Your task to perform on an android device: allow cookies in the chrome app Image 0: 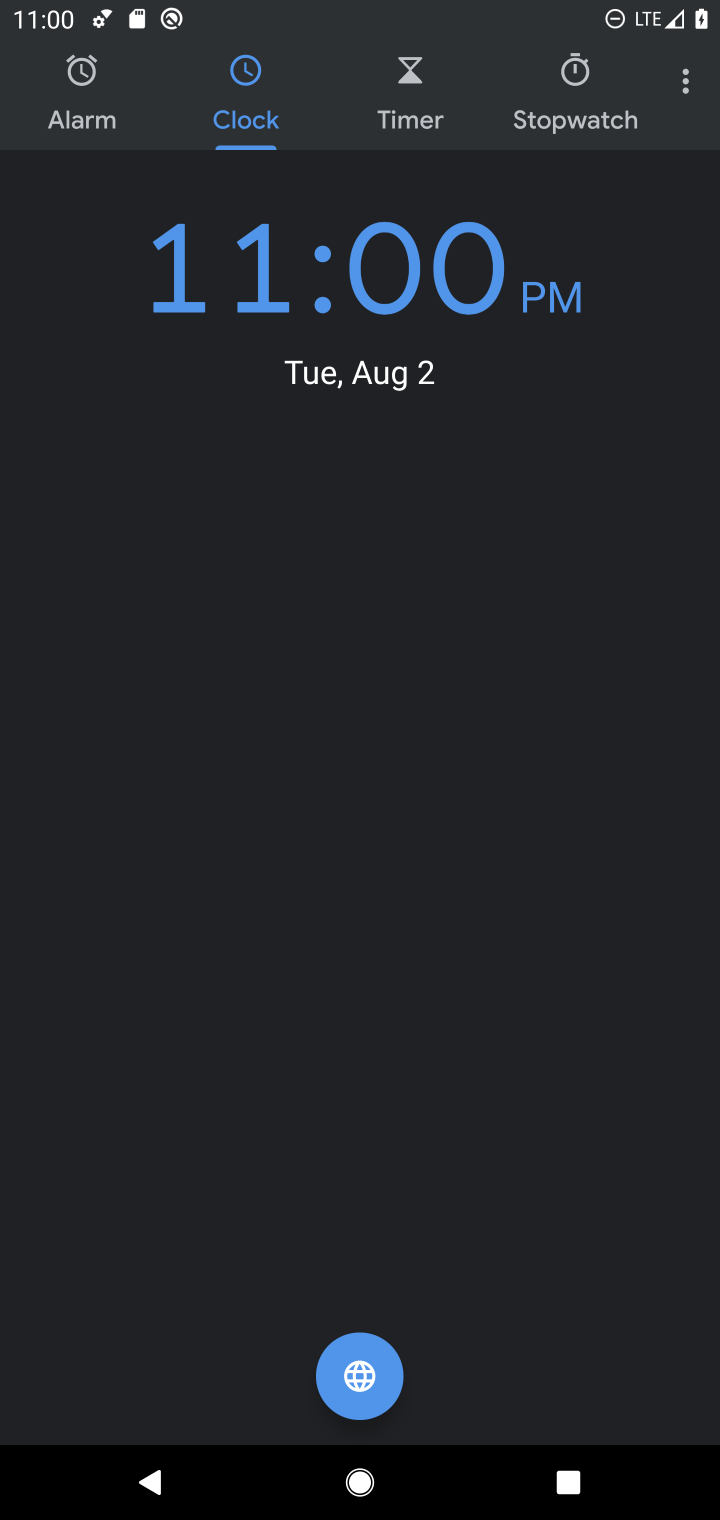
Step 0: press home button
Your task to perform on an android device: allow cookies in the chrome app Image 1: 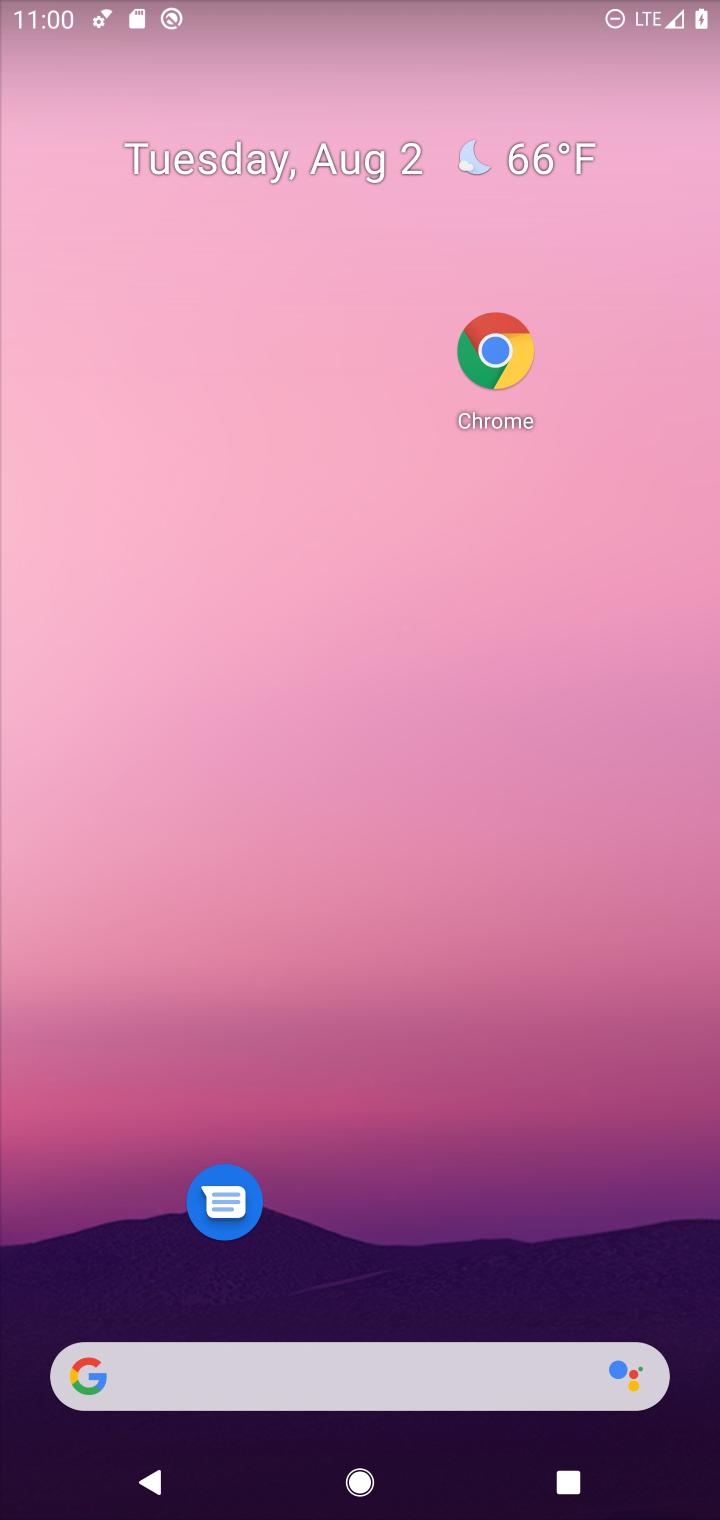
Step 1: click (493, 360)
Your task to perform on an android device: allow cookies in the chrome app Image 2: 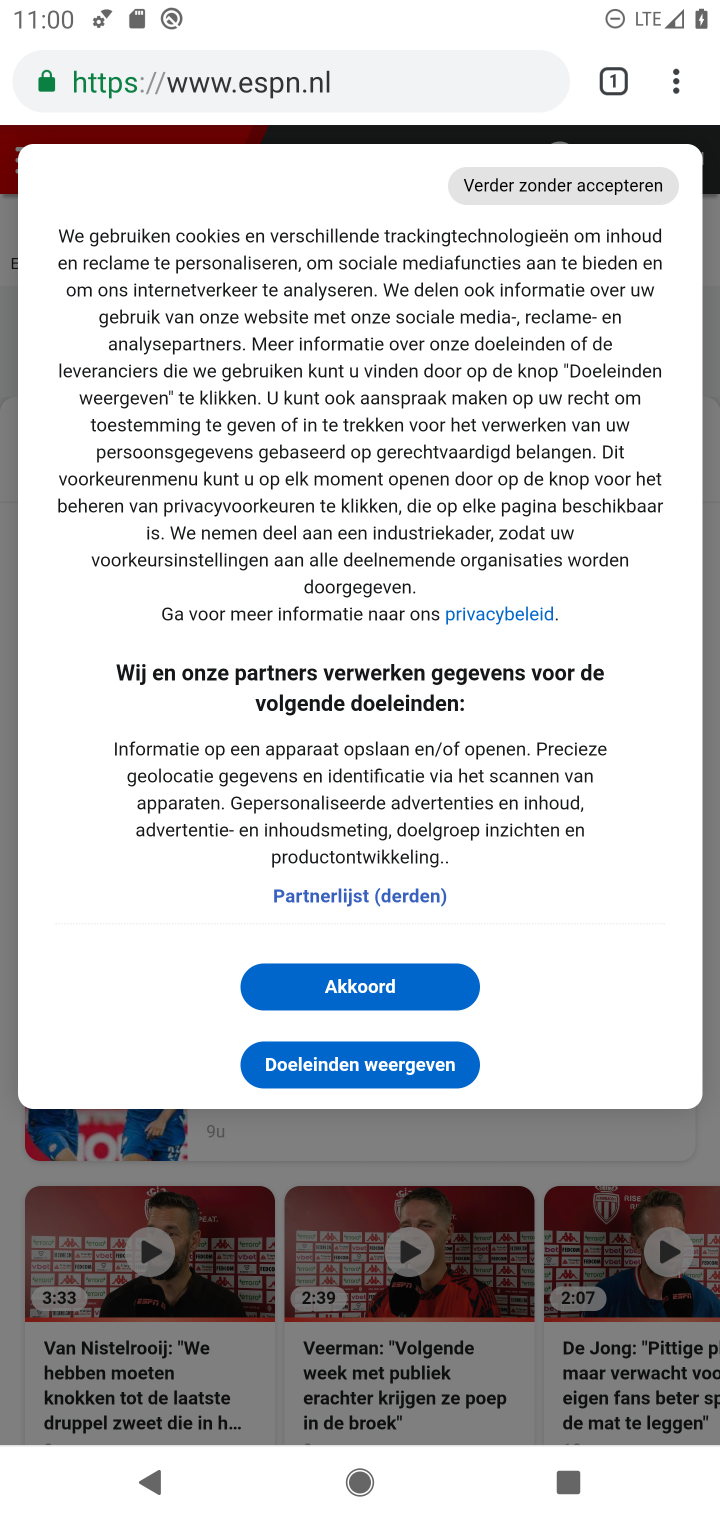
Step 2: drag from (679, 83) to (385, 989)
Your task to perform on an android device: allow cookies in the chrome app Image 3: 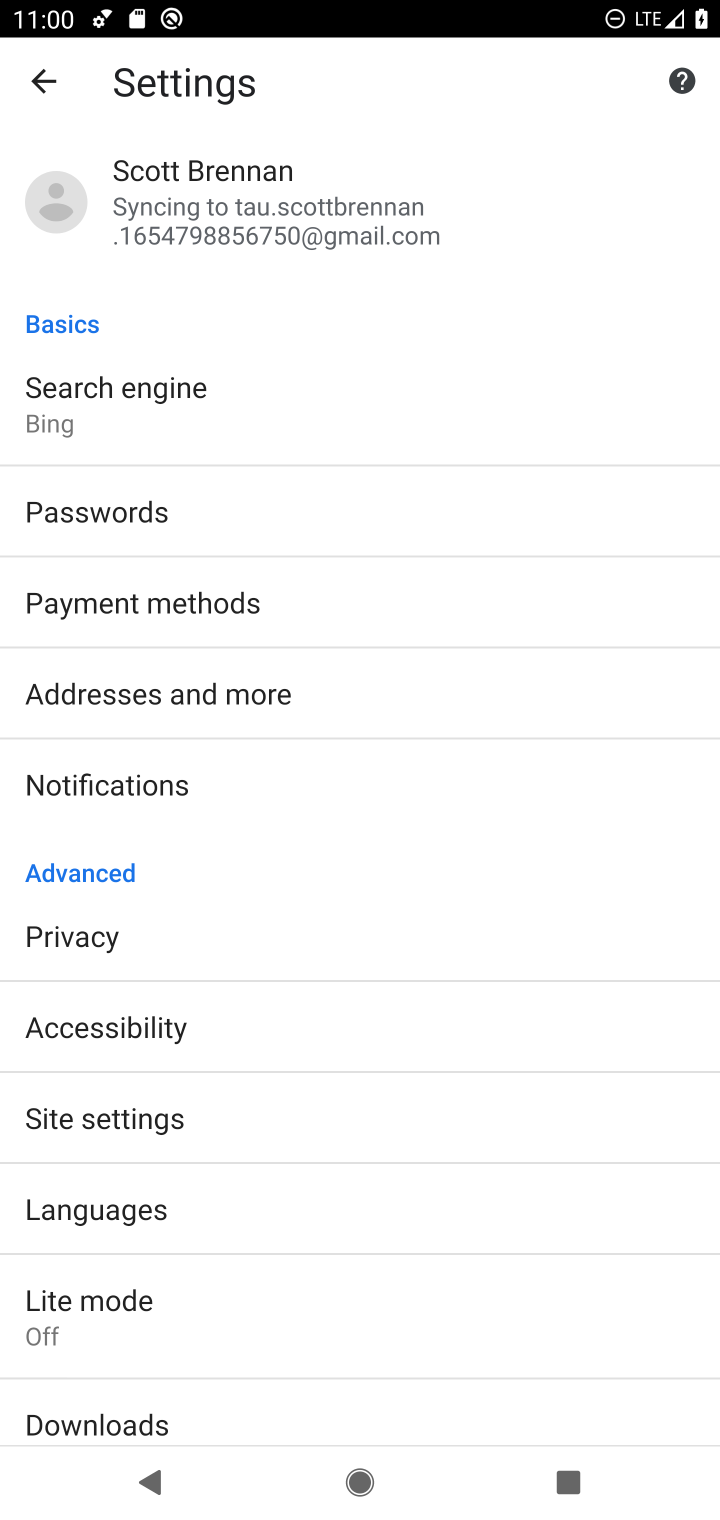
Step 3: click (113, 1135)
Your task to perform on an android device: allow cookies in the chrome app Image 4: 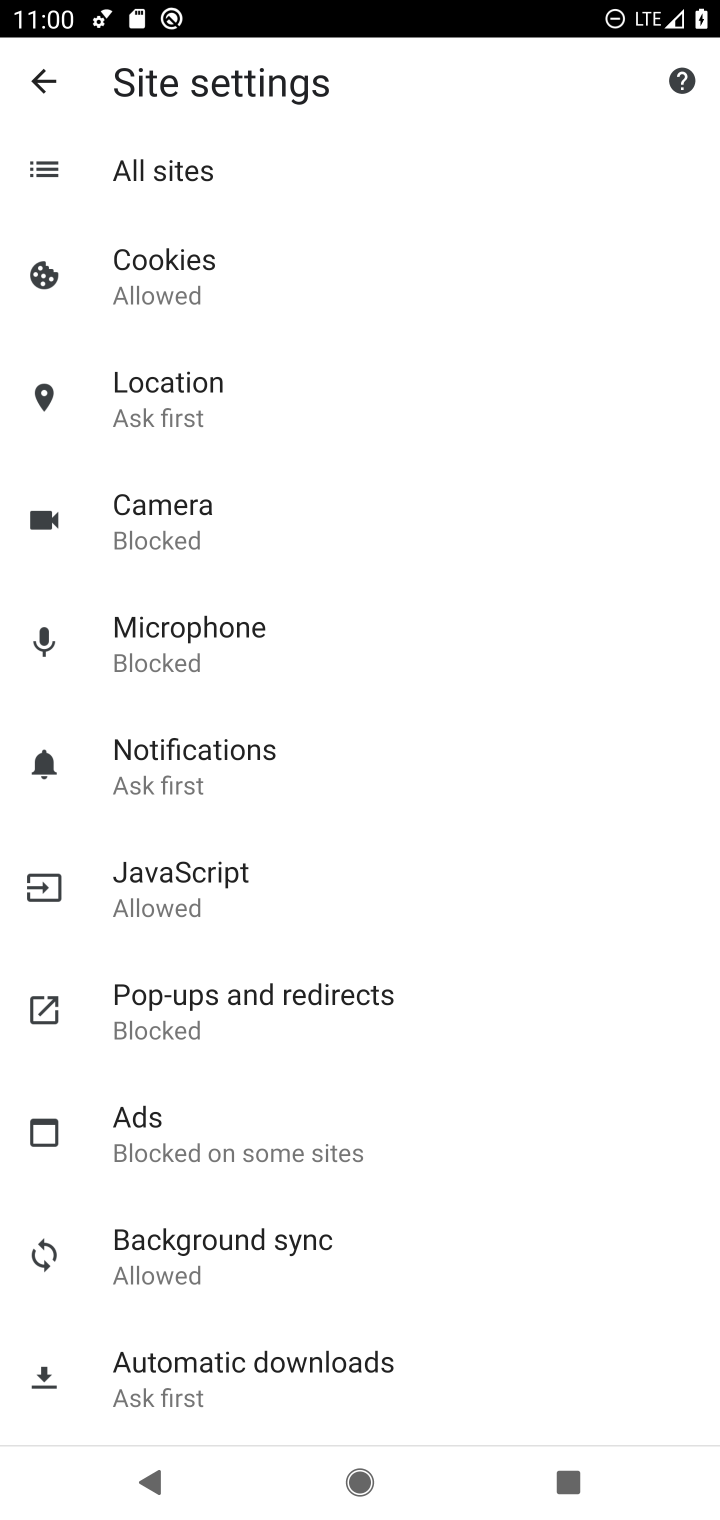
Step 4: click (173, 294)
Your task to perform on an android device: allow cookies in the chrome app Image 5: 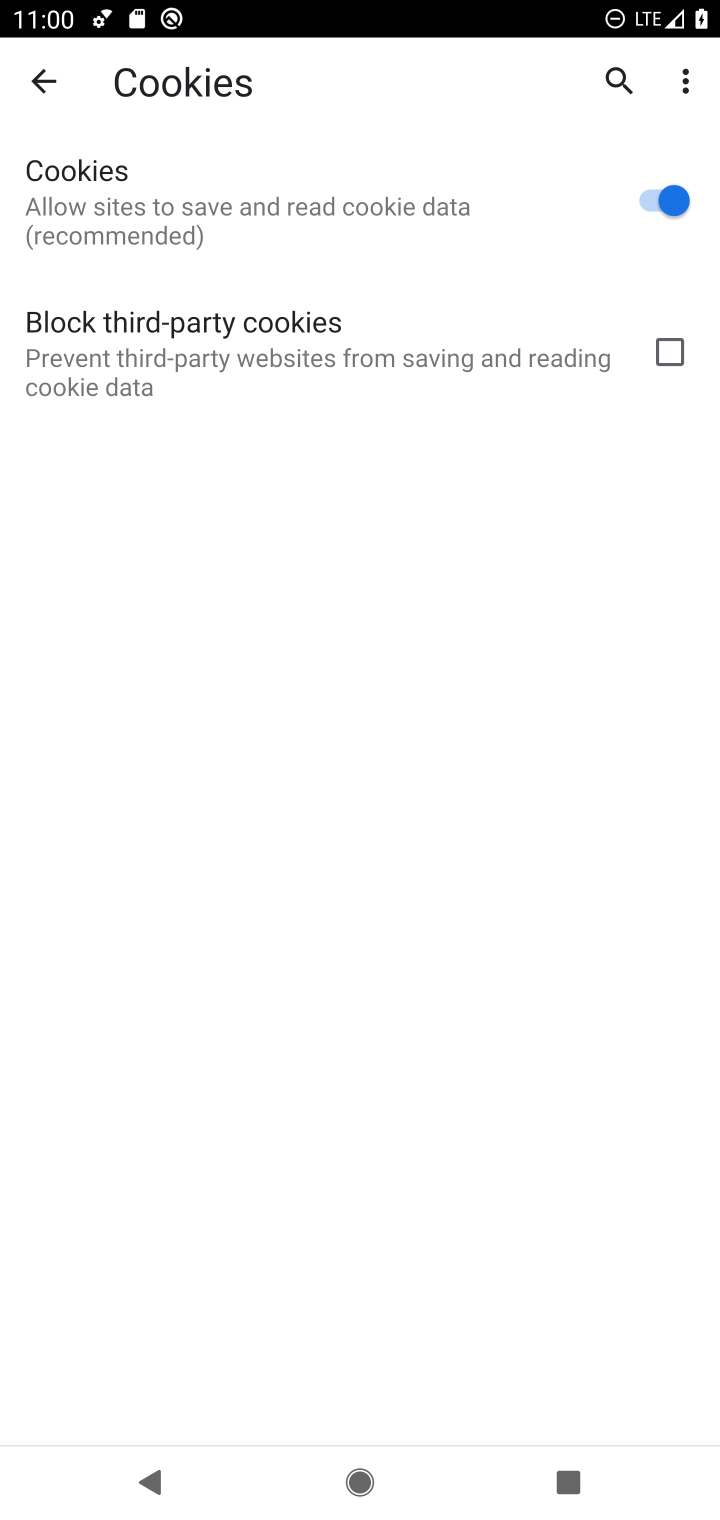
Step 5: task complete